Your task to perform on an android device: turn pop-ups off in chrome Image 0: 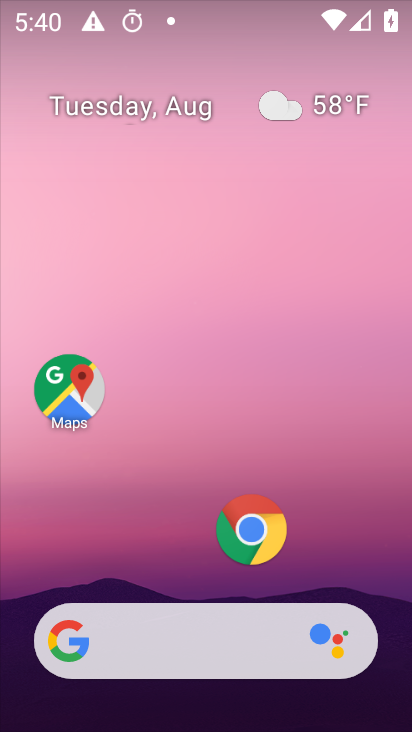
Step 0: click (257, 531)
Your task to perform on an android device: turn pop-ups off in chrome Image 1: 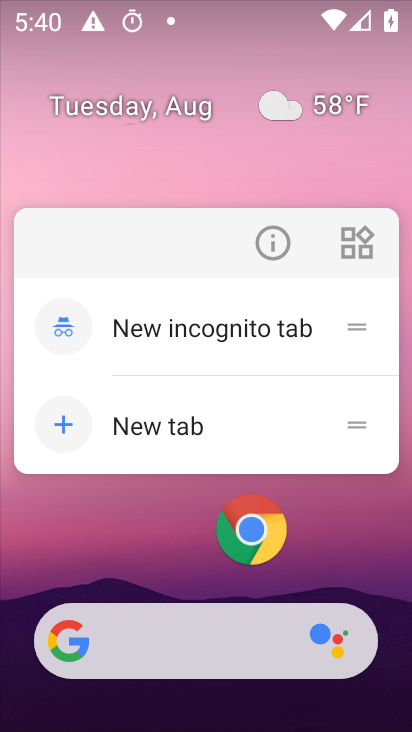
Step 1: click (257, 531)
Your task to perform on an android device: turn pop-ups off in chrome Image 2: 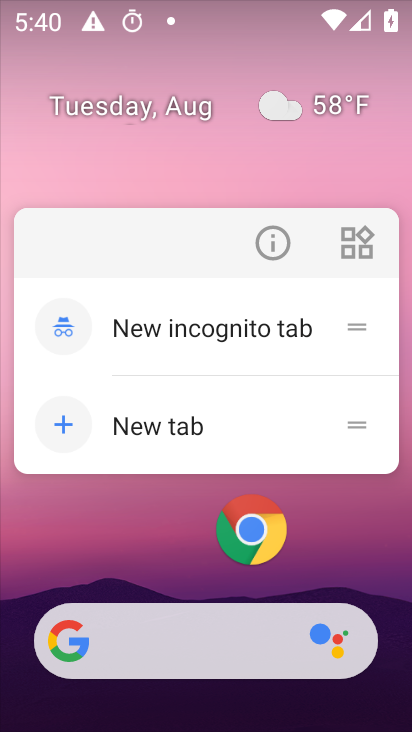
Step 2: click (234, 533)
Your task to perform on an android device: turn pop-ups off in chrome Image 3: 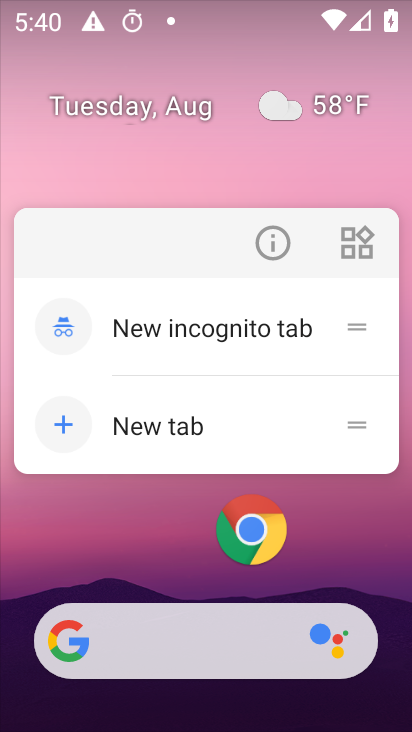
Step 3: click (234, 533)
Your task to perform on an android device: turn pop-ups off in chrome Image 4: 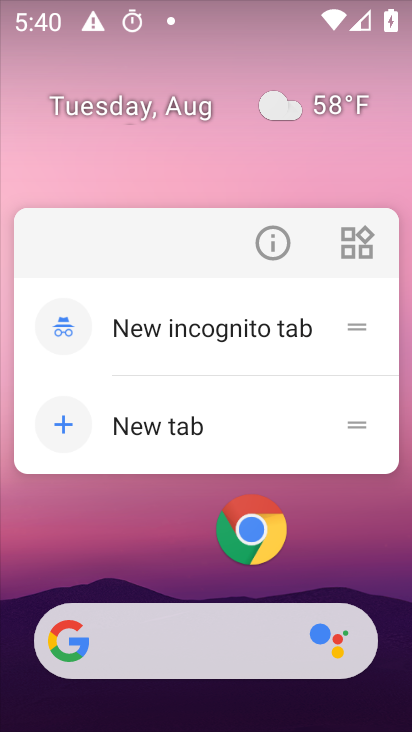
Step 4: click (237, 535)
Your task to perform on an android device: turn pop-ups off in chrome Image 5: 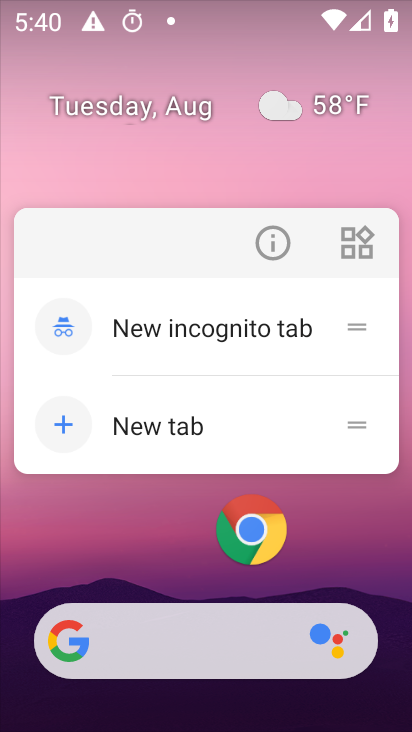
Step 5: click (254, 526)
Your task to perform on an android device: turn pop-ups off in chrome Image 6: 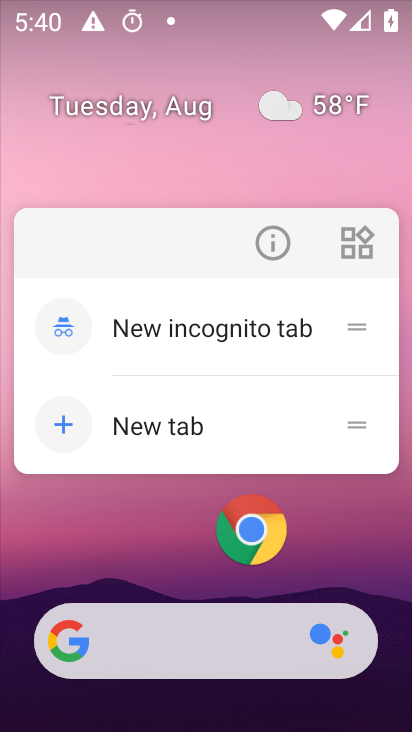
Step 6: click (244, 546)
Your task to perform on an android device: turn pop-ups off in chrome Image 7: 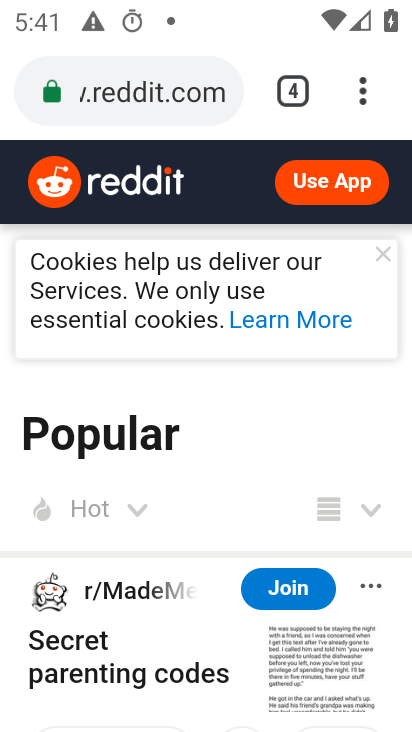
Step 7: drag from (367, 88) to (123, 567)
Your task to perform on an android device: turn pop-ups off in chrome Image 8: 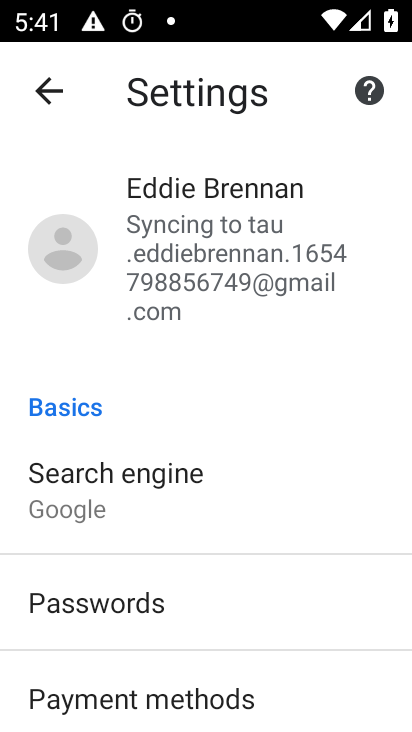
Step 8: drag from (210, 621) to (251, 273)
Your task to perform on an android device: turn pop-ups off in chrome Image 9: 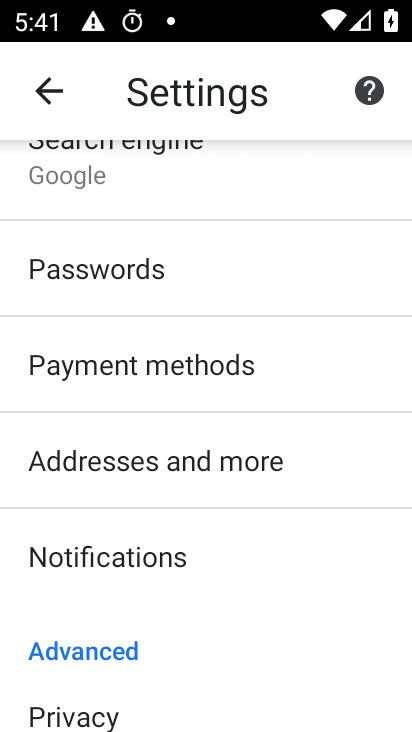
Step 9: drag from (206, 571) to (233, 273)
Your task to perform on an android device: turn pop-ups off in chrome Image 10: 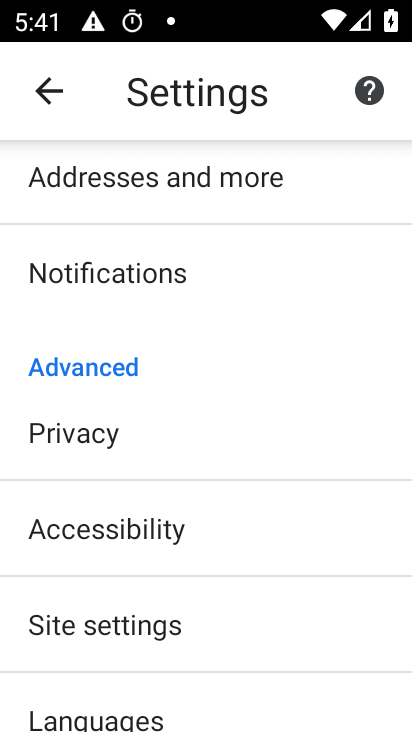
Step 10: click (172, 600)
Your task to perform on an android device: turn pop-ups off in chrome Image 11: 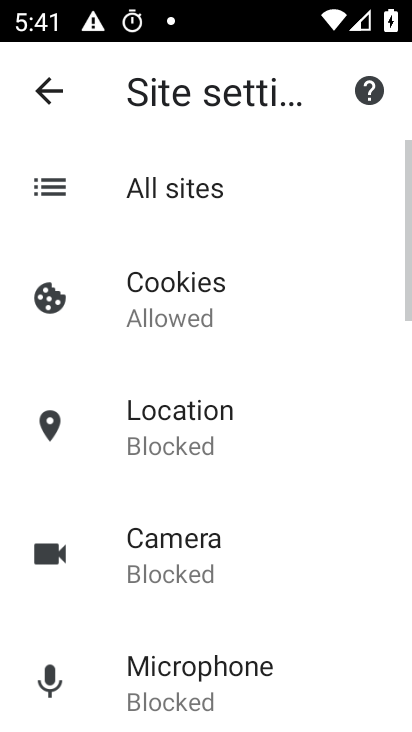
Step 11: drag from (220, 640) to (271, 329)
Your task to perform on an android device: turn pop-ups off in chrome Image 12: 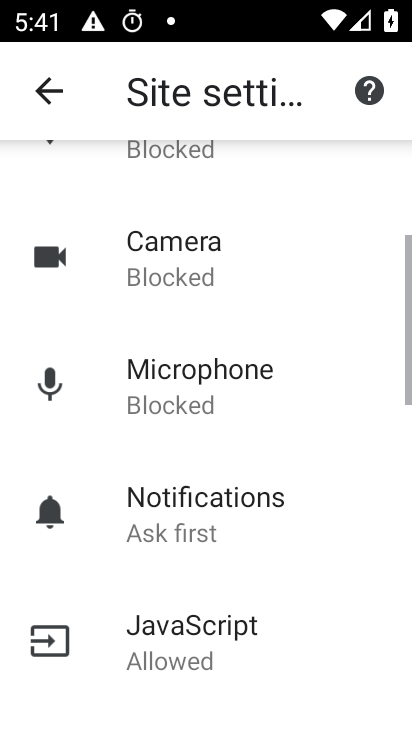
Step 12: drag from (267, 597) to (316, 275)
Your task to perform on an android device: turn pop-ups off in chrome Image 13: 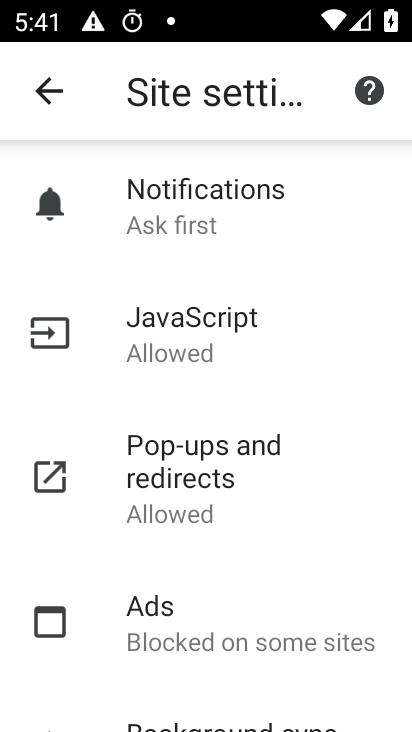
Step 13: click (282, 482)
Your task to perform on an android device: turn pop-ups off in chrome Image 14: 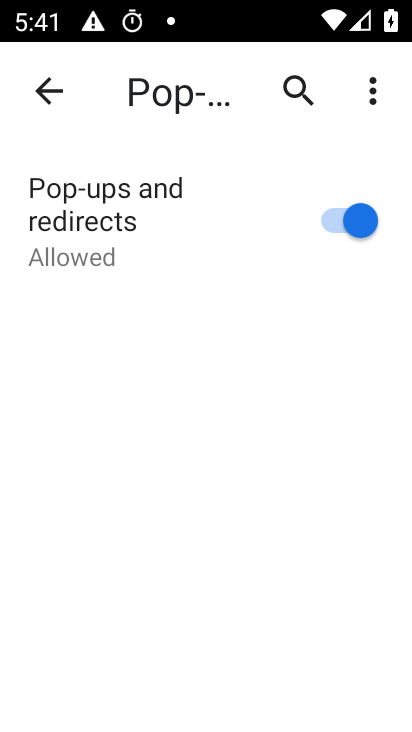
Step 14: click (342, 230)
Your task to perform on an android device: turn pop-ups off in chrome Image 15: 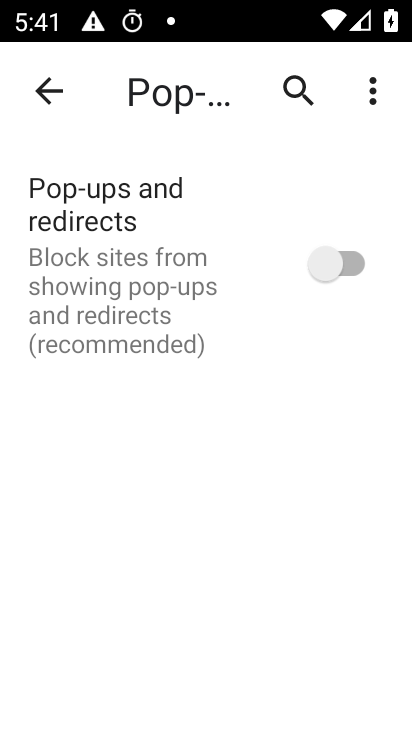
Step 15: task complete